Your task to perform on an android device: change notification settings in the gmail app Image 0: 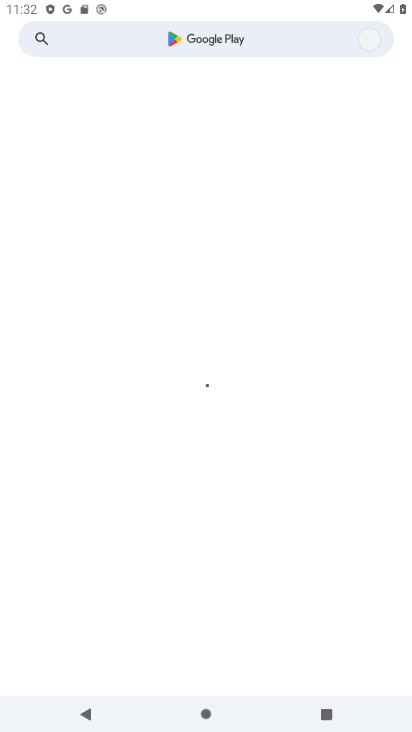
Step 0: press home button
Your task to perform on an android device: change notification settings in the gmail app Image 1: 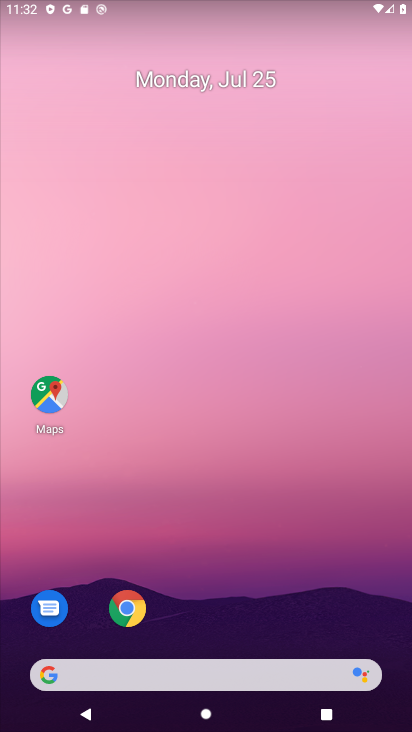
Step 1: drag from (253, 613) to (253, 65)
Your task to perform on an android device: change notification settings in the gmail app Image 2: 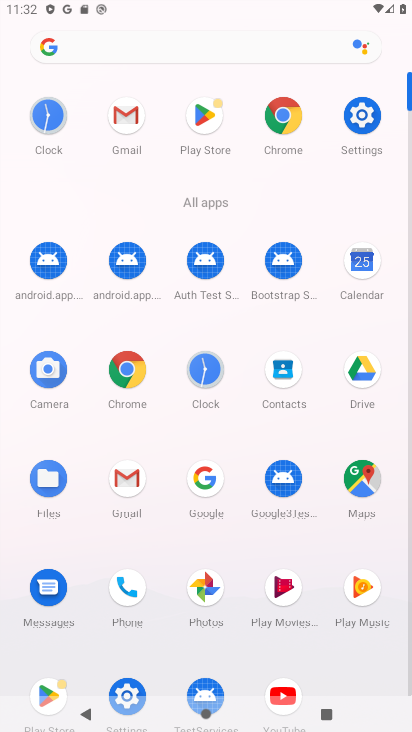
Step 2: click (362, 119)
Your task to perform on an android device: change notification settings in the gmail app Image 3: 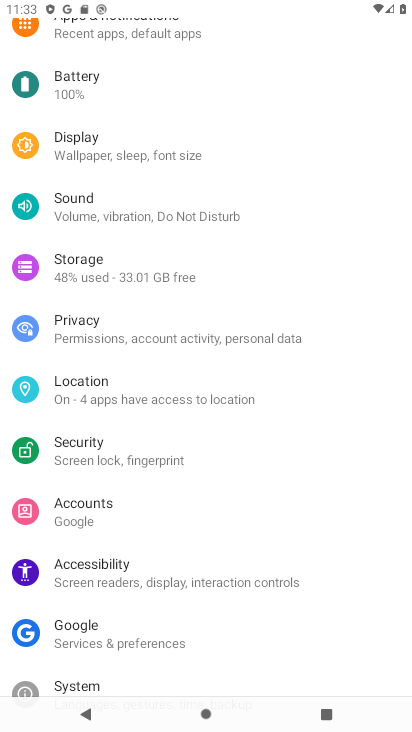
Step 3: drag from (129, 79) to (202, 640)
Your task to perform on an android device: change notification settings in the gmail app Image 4: 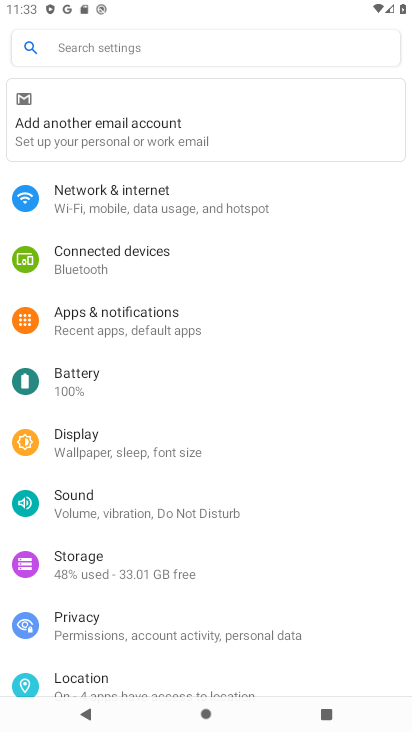
Step 4: click (150, 319)
Your task to perform on an android device: change notification settings in the gmail app Image 5: 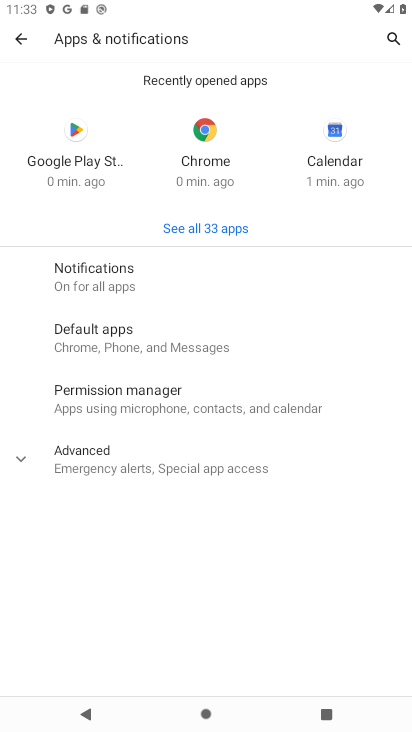
Step 5: click (225, 229)
Your task to perform on an android device: change notification settings in the gmail app Image 6: 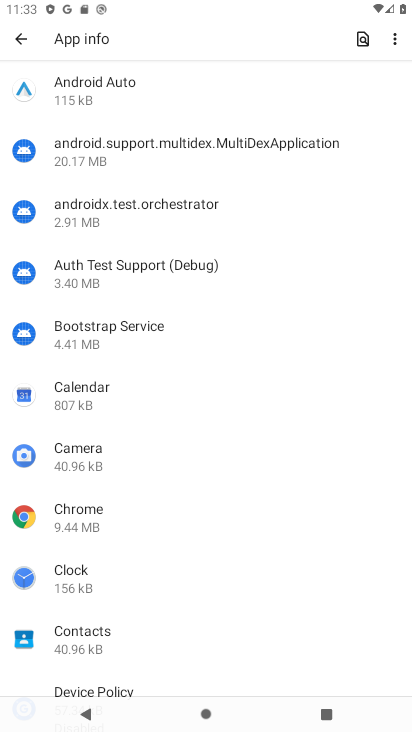
Step 6: drag from (153, 576) to (149, 18)
Your task to perform on an android device: change notification settings in the gmail app Image 7: 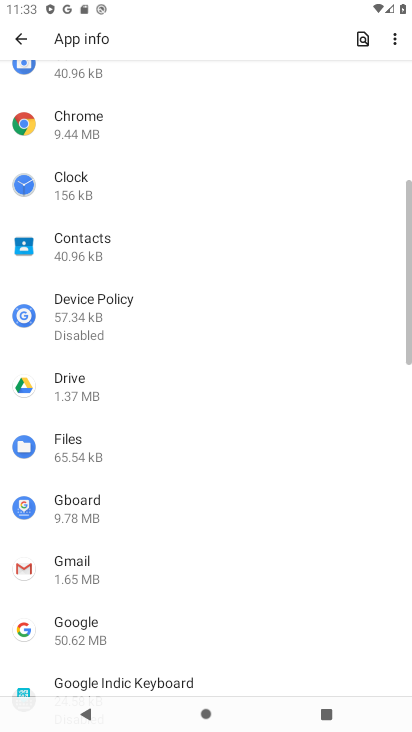
Step 7: drag from (104, 607) to (134, 313)
Your task to perform on an android device: change notification settings in the gmail app Image 8: 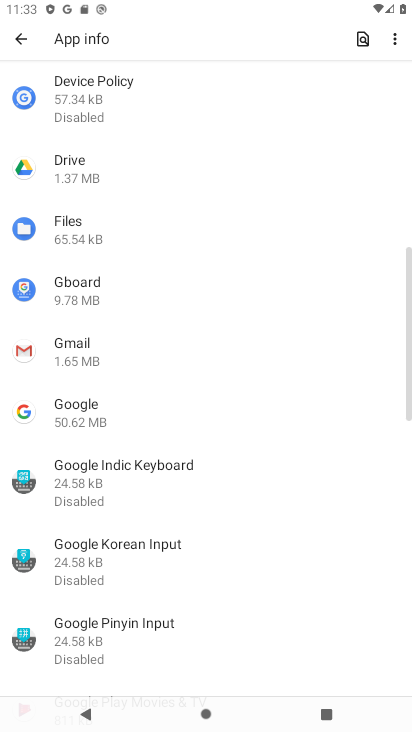
Step 8: click (96, 350)
Your task to perform on an android device: change notification settings in the gmail app Image 9: 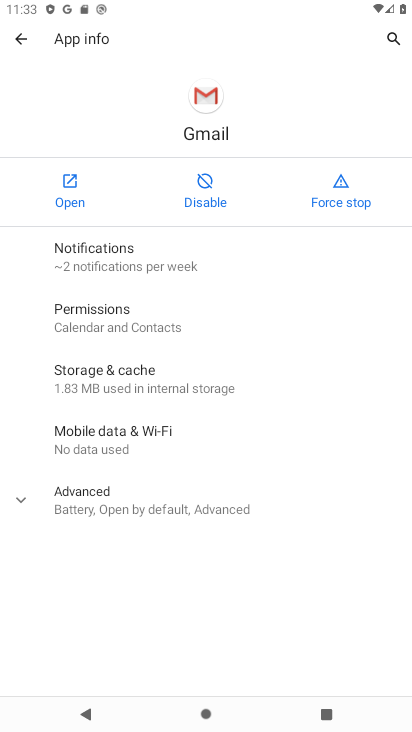
Step 9: click (143, 243)
Your task to perform on an android device: change notification settings in the gmail app Image 10: 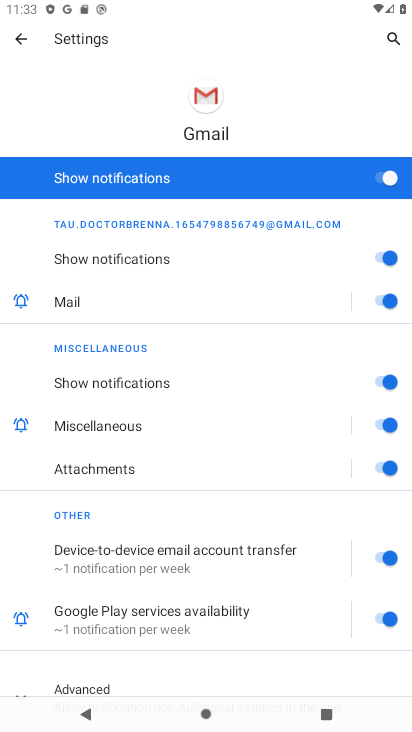
Step 10: click (380, 186)
Your task to perform on an android device: change notification settings in the gmail app Image 11: 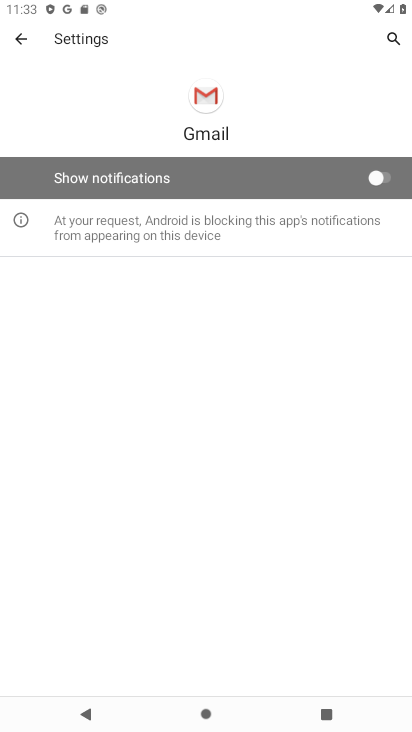
Step 11: task complete